Your task to perform on an android device: set the timer Image 0: 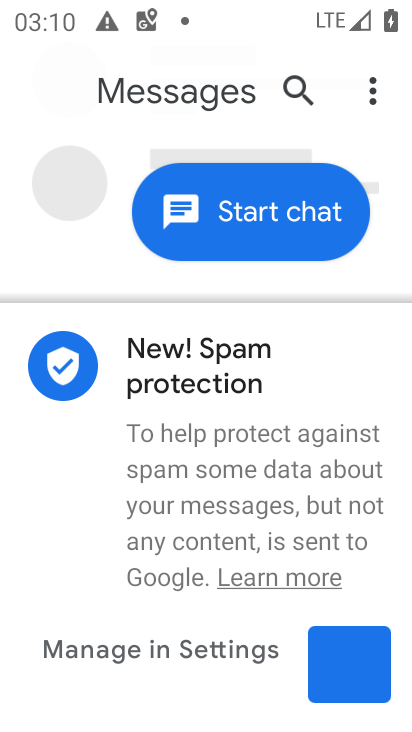
Step 0: press home button
Your task to perform on an android device: set the timer Image 1: 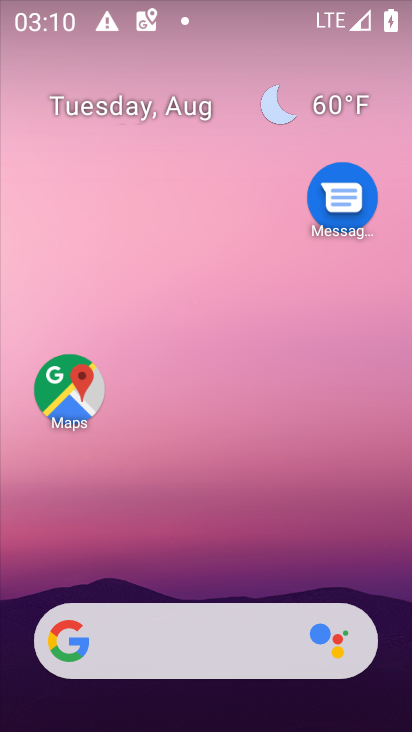
Step 1: drag from (196, 334) to (218, 23)
Your task to perform on an android device: set the timer Image 2: 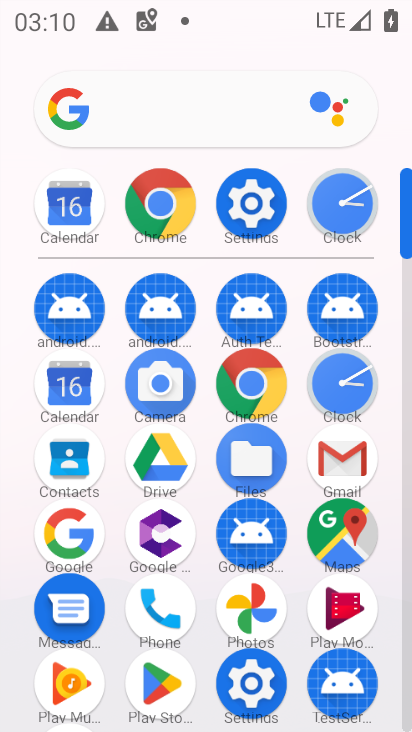
Step 2: click (345, 236)
Your task to perform on an android device: set the timer Image 3: 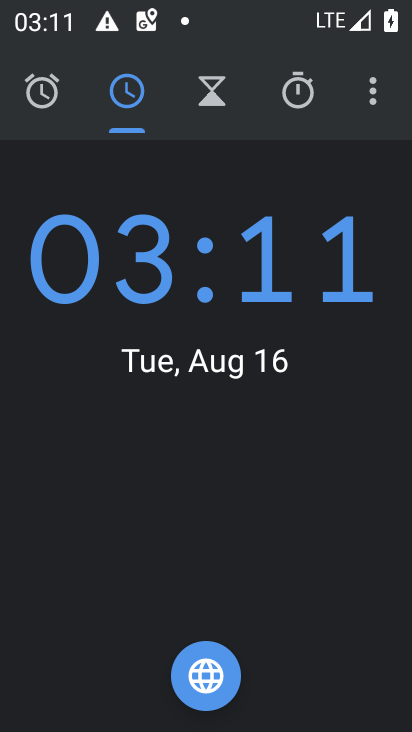
Step 3: click (220, 116)
Your task to perform on an android device: set the timer Image 4: 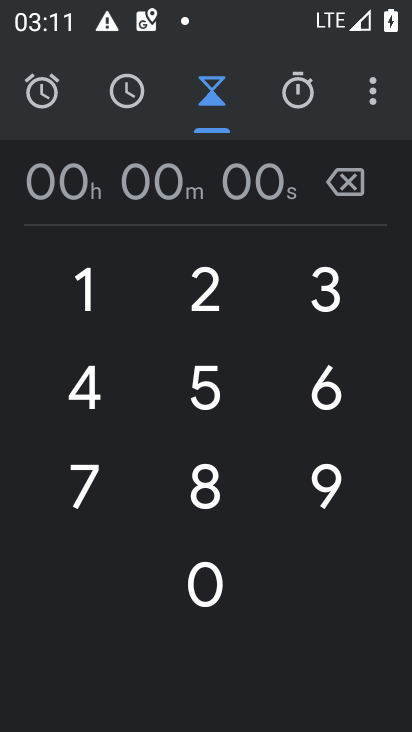
Step 4: task complete